Your task to perform on an android device: check android version Image 0: 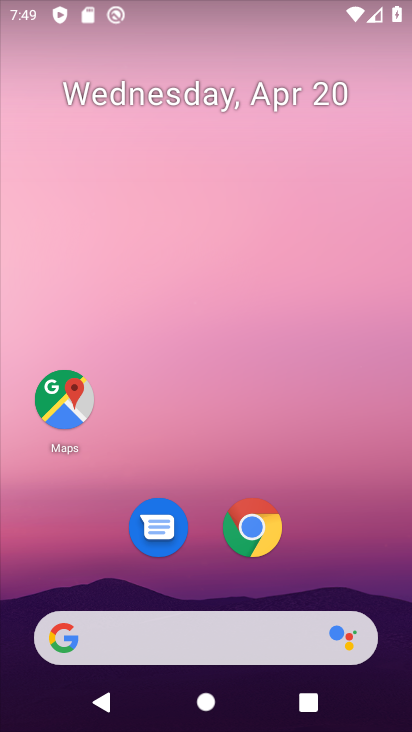
Step 0: drag from (213, 617) to (341, 153)
Your task to perform on an android device: check android version Image 1: 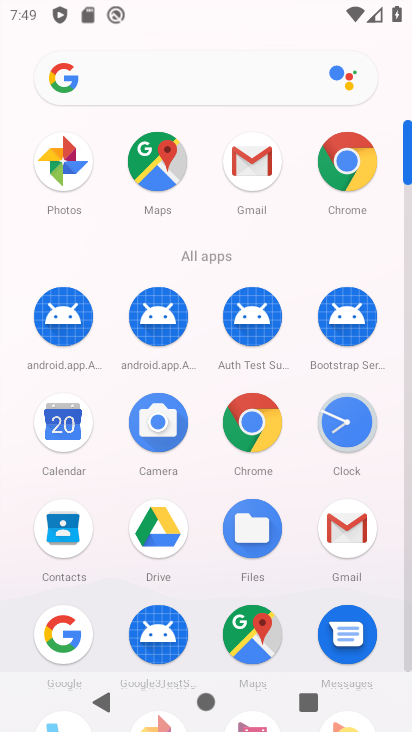
Step 1: drag from (282, 302) to (302, 65)
Your task to perform on an android device: check android version Image 2: 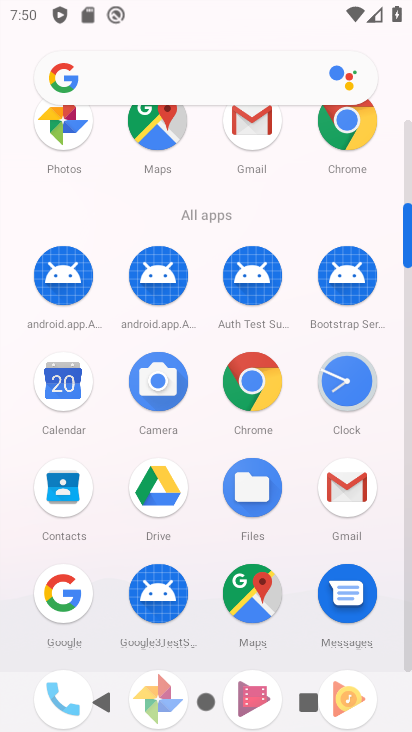
Step 2: drag from (231, 639) to (250, 209)
Your task to perform on an android device: check android version Image 3: 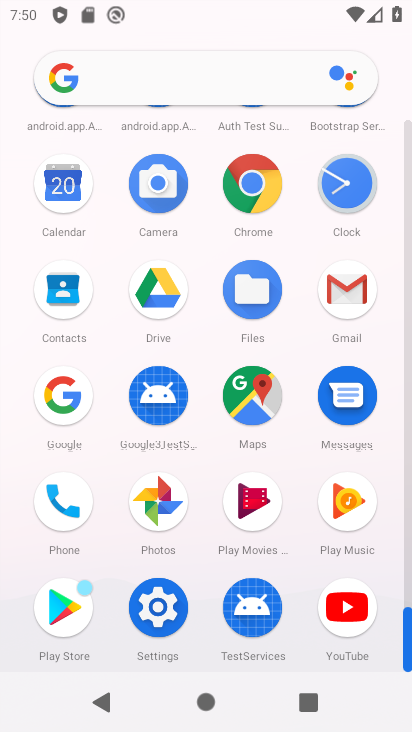
Step 3: click (149, 595)
Your task to perform on an android device: check android version Image 4: 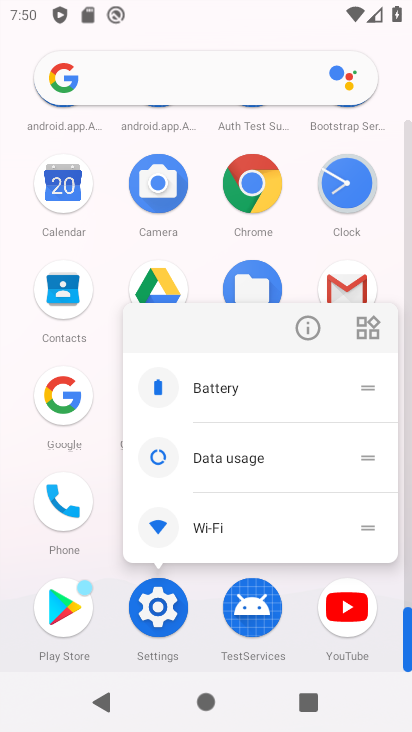
Step 4: click (157, 616)
Your task to perform on an android device: check android version Image 5: 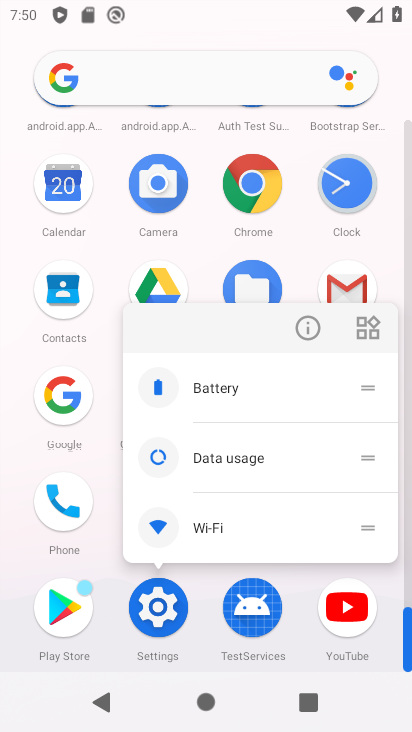
Step 5: click (164, 609)
Your task to perform on an android device: check android version Image 6: 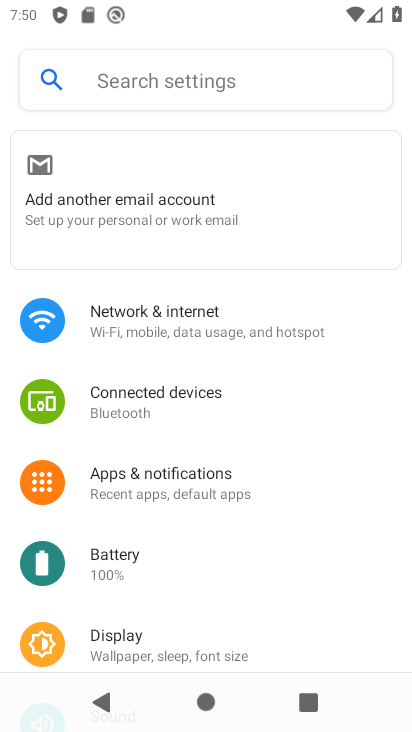
Step 6: drag from (169, 650) to (200, 221)
Your task to perform on an android device: check android version Image 7: 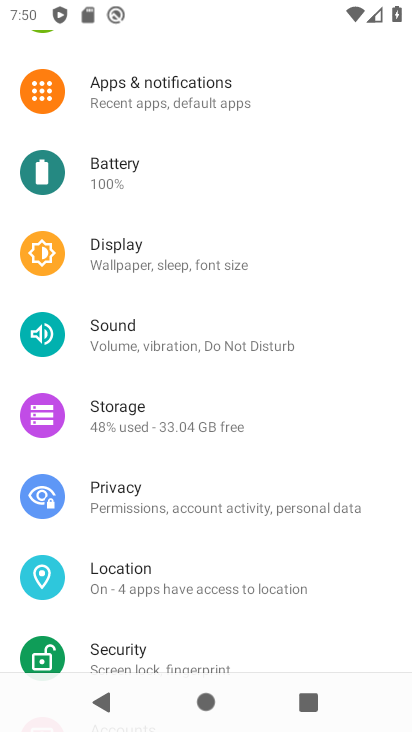
Step 7: drag from (150, 630) to (191, 251)
Your task to perform on an android device: check android version Image 8: 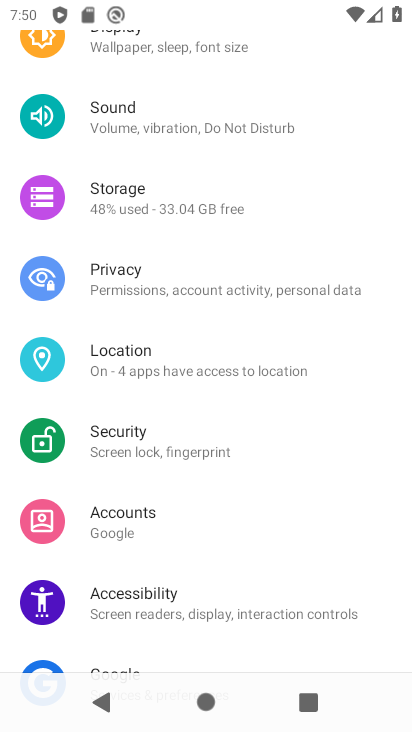
Step 8: drag from (170, 623) to (197, 358)
Your task to perform on an android device: check android version Image 9: 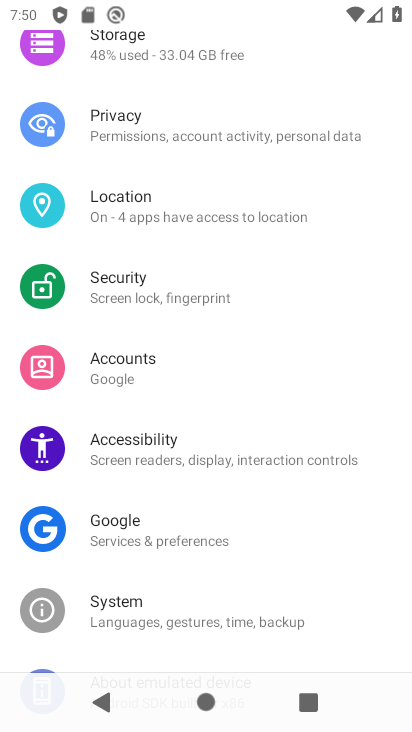
Step 9: drag from (147, 655) to (147, 339)
Your task to perform on an android device: check android version Image 10: 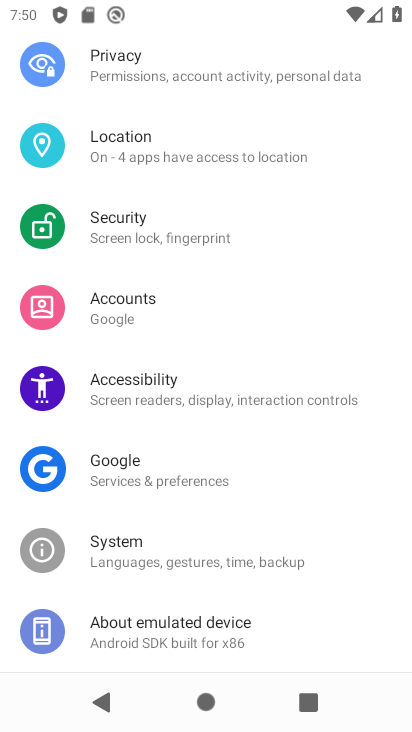
Step 10: click (166, 635)
Your task to perform on an android device: check android version Image 11: 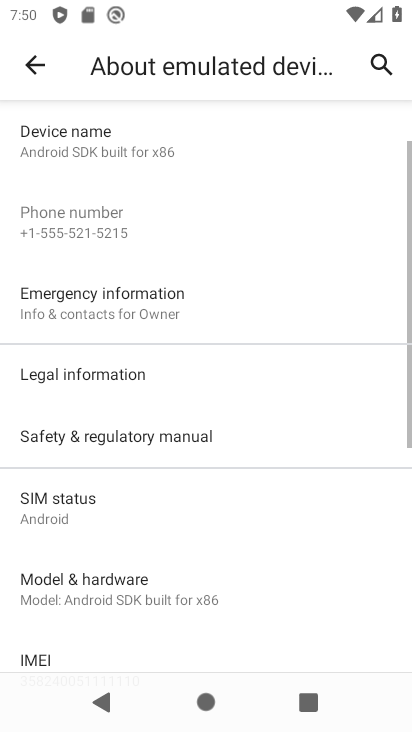
Step 11: drag from (113, 639) to (141, 301)
Your task to perform on an android device: check android version Image 12: 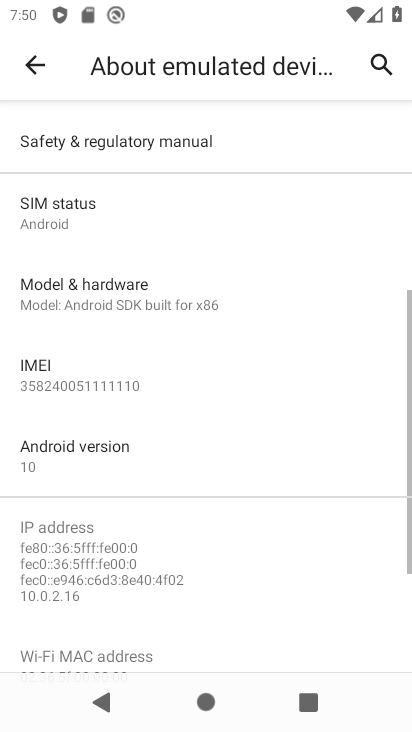
Step 12: click (110, 452)
Your task to perform on an android device: check android version Image 13: 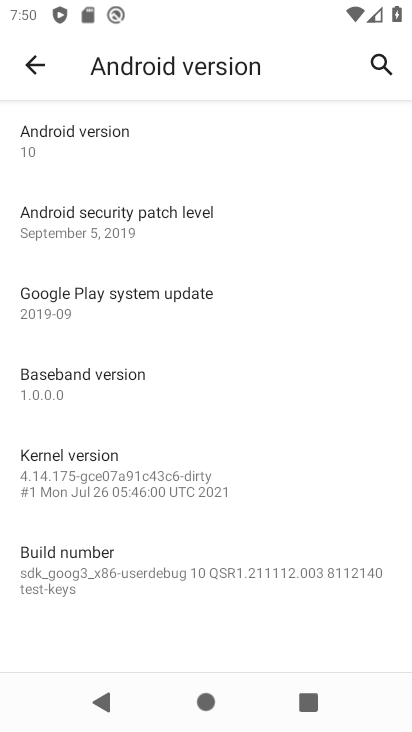
Step 13: task complete